Your task to perform on an android device: open a bookmark in the chrome app Image 0: 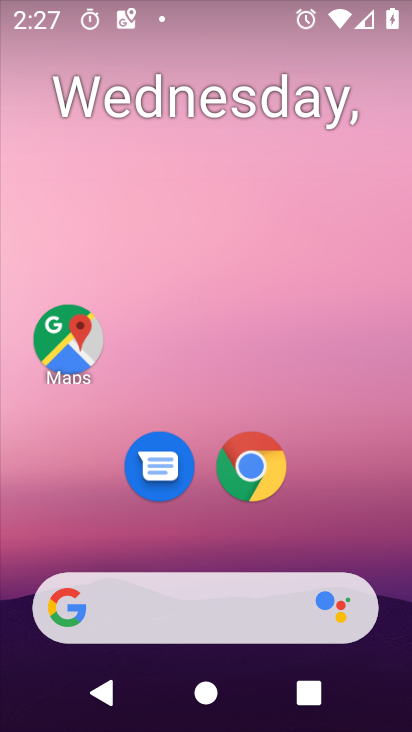
Step 0: click (268, 479)
Your task to perform on an android device: open a bookmark in the chrome app Image 1: 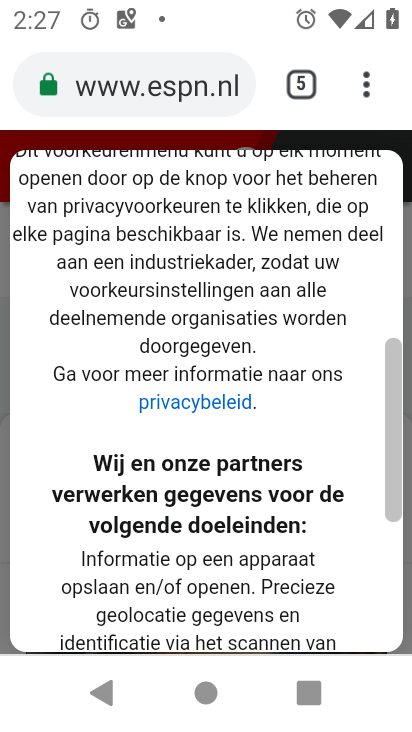
Step 1: click (353, 80)
Your task to perform on an android device: open a bookmark in the chrome app Image 2: 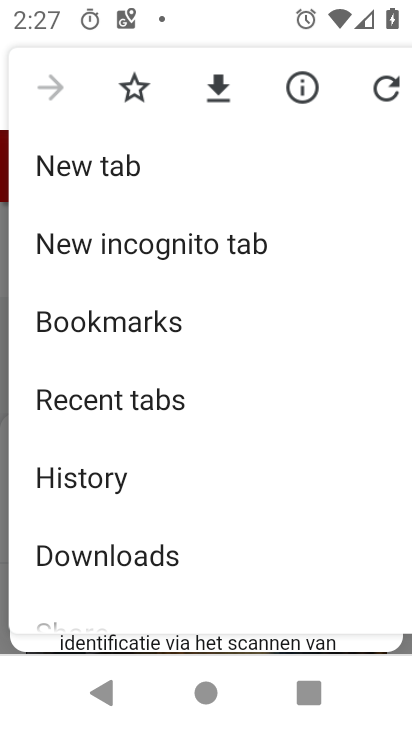
Step 2: click (177, 333)
Your task to perform on an android device: open a bookmark in the chrome app Image 3: 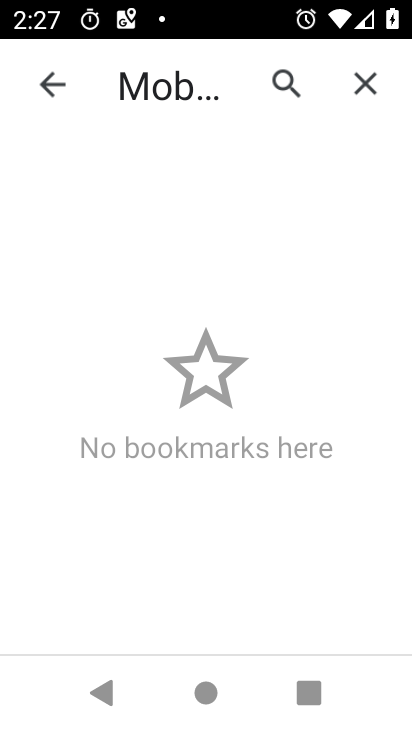
Step 3: task complete